Your task to perform on an android device: open app "Skype" (install if not already installed) Image 0: 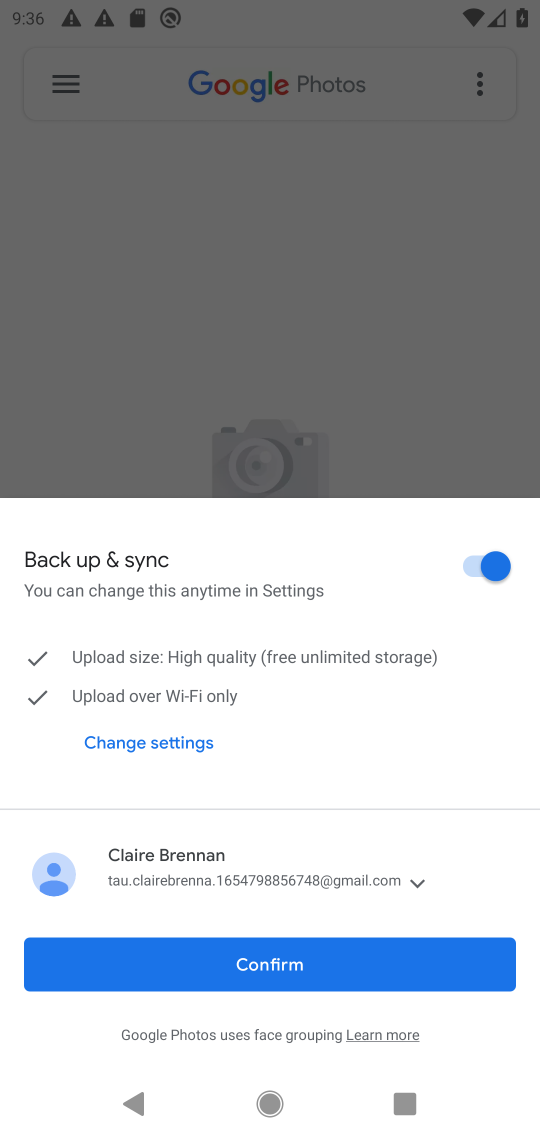
Step 0: press home button
Your task to perform on an android device: open app "Skype" (install if not already installed) Image 1: 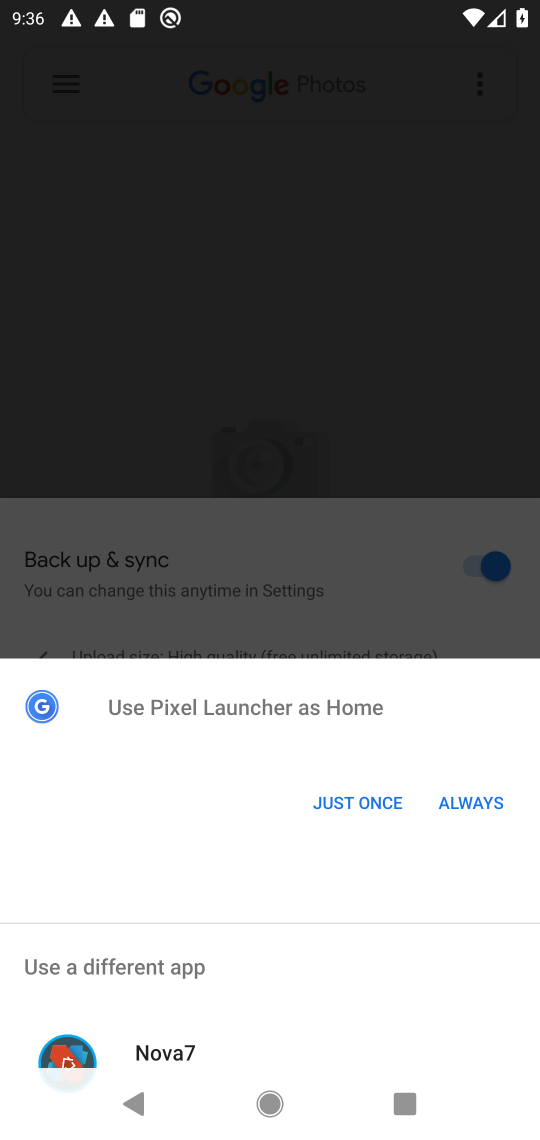
Step 1: click (349, 799)
Your task to perform on an android device: open app "Skype" (install if not already installed) Image 2: 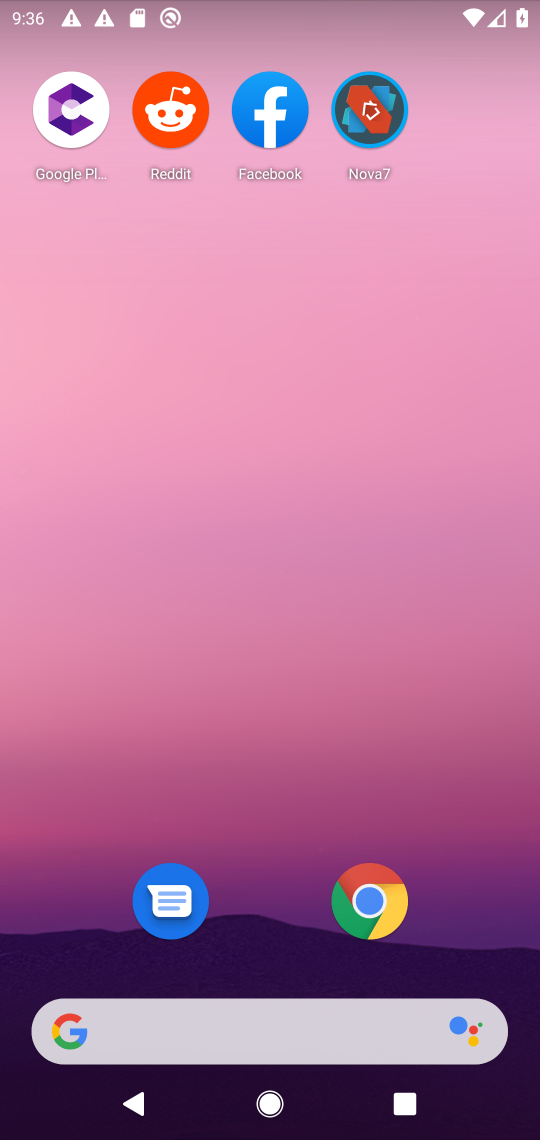
Step 2: drag from (323, 1016) to (390, 0)
Your task to perform on an android device: open app "Skype" (install if not already installed) Image 3: 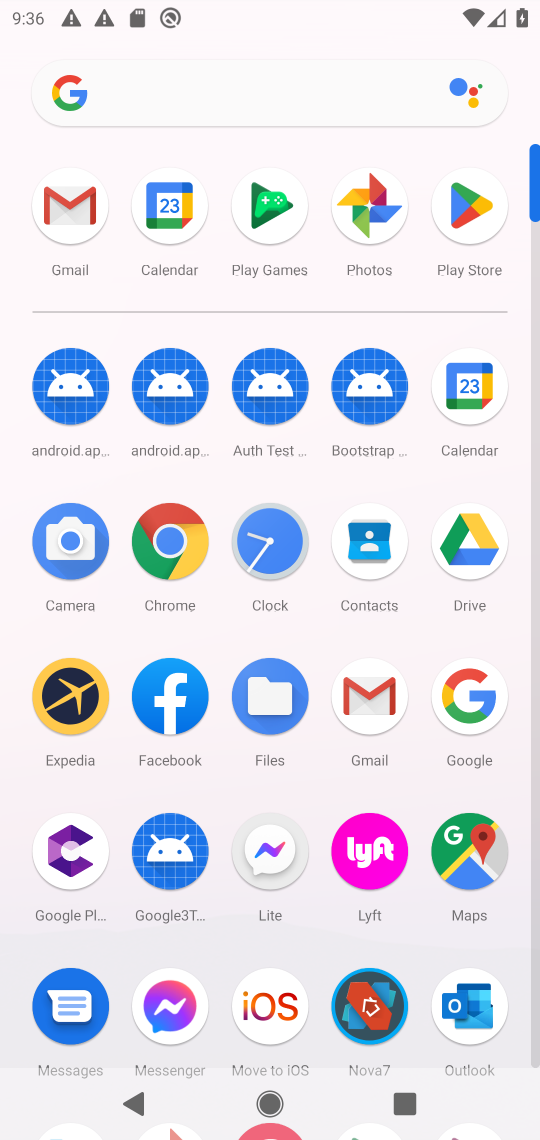
Step 3: click (475, 202)
Your task to perform on an android device: open app "Skype" (install if not already installed) Image 4: 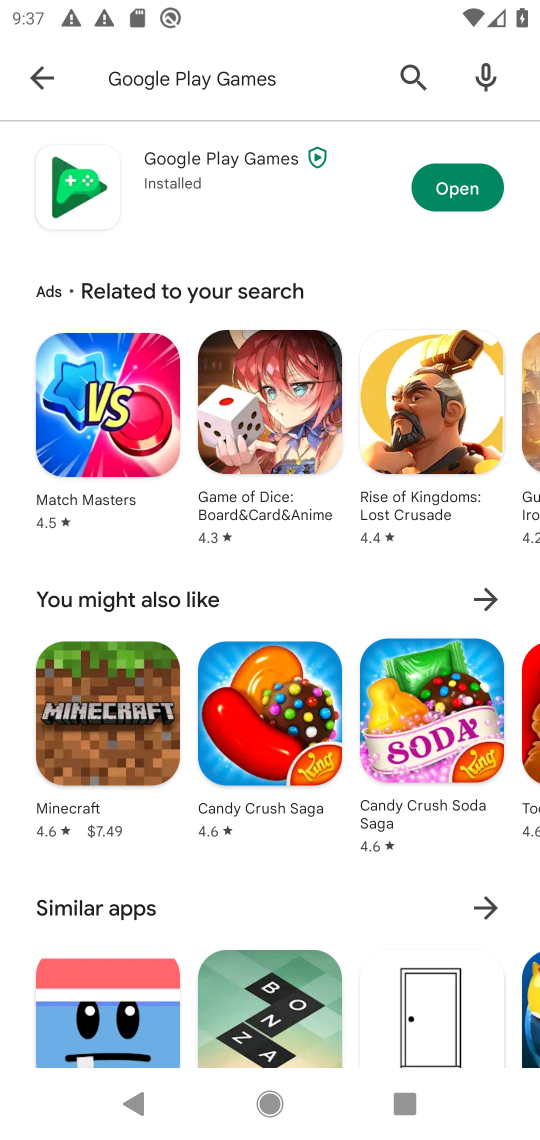
Step 4: press back button
Your task to perform on an android device: open app "Skype" (install if not already installed) Image 5: 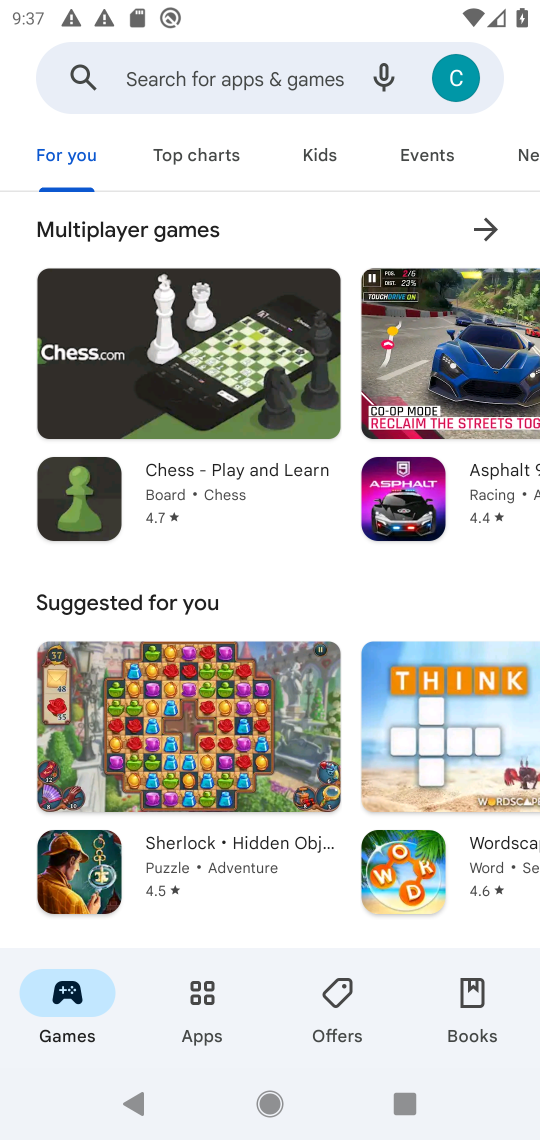
Step 5: click (261, 71)
Your task to perform on an android device: open app "Skype" (install if not already installed) Image 6: 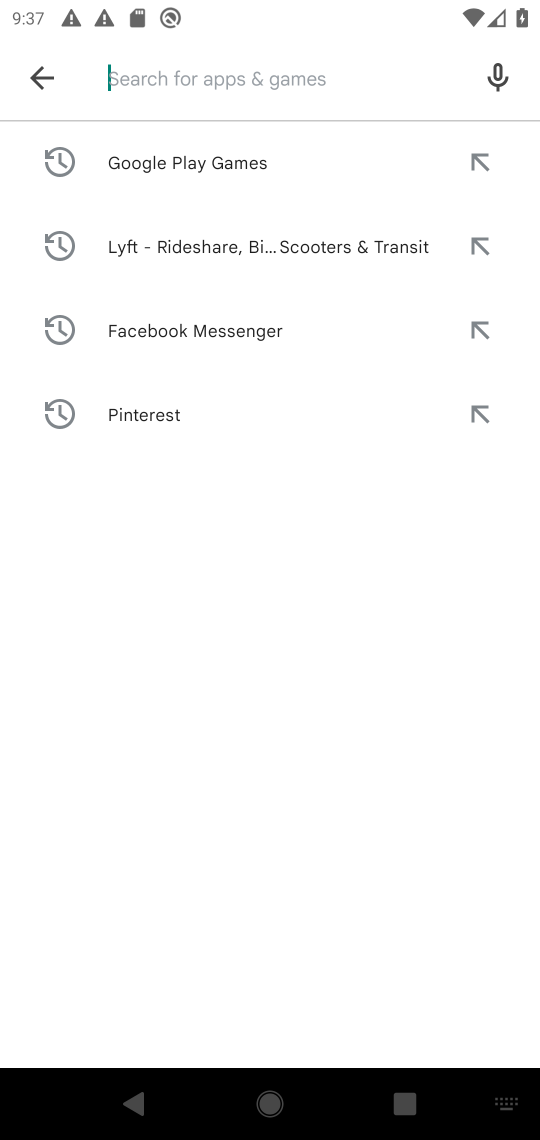
Step 6: type "Skype"
Your task to perform on an android device: open app "Skype" (install if not already installed) Image 7: 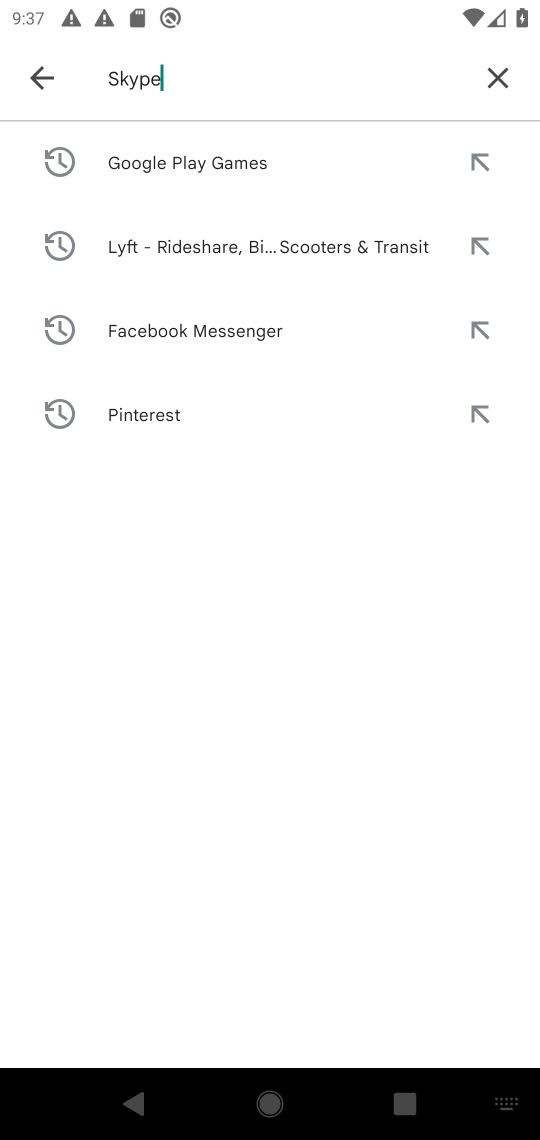
Step 7: press enter
Your task to perform on an android device: open app "Skype" (install if not already installed) Image 8: 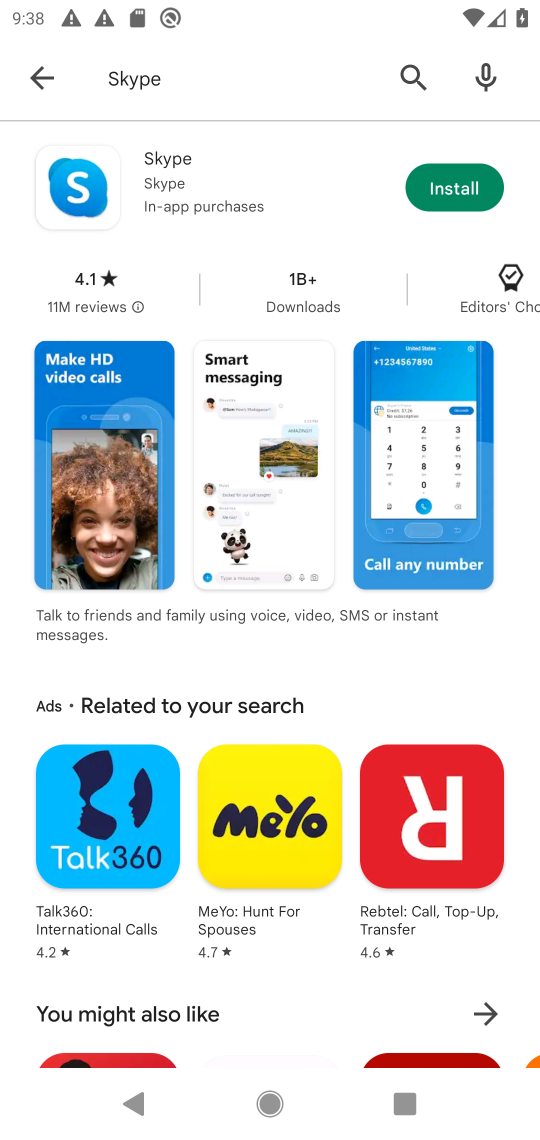
Step 8: click (484, 179)
Your task to perform on an android device: open app "Skype" (install if not already installed) Image 9: 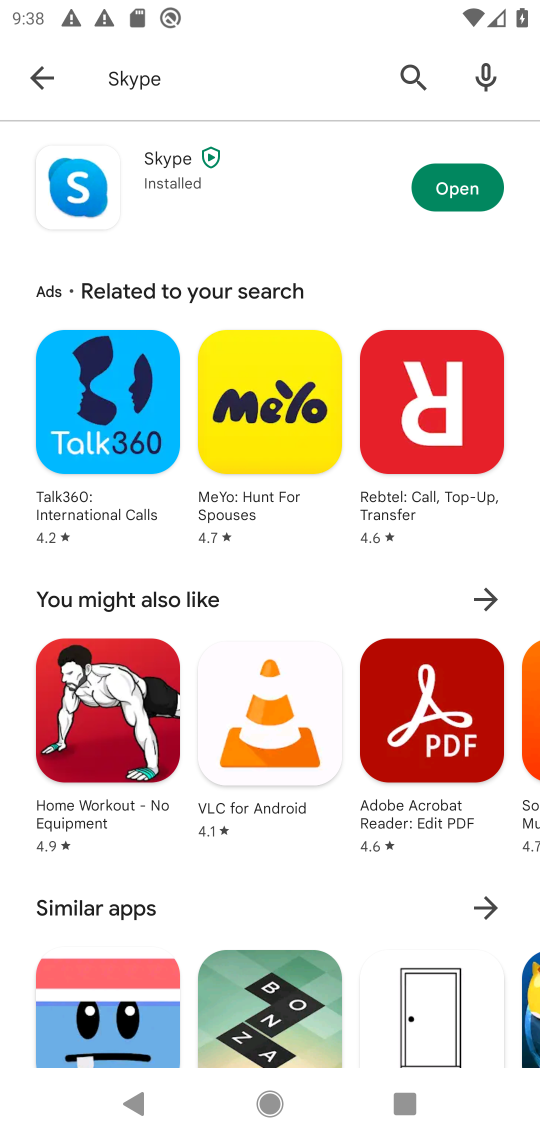
Step 9: task complete